Your task to perform on an android device: turn on javascript in the chrome app Image 0: 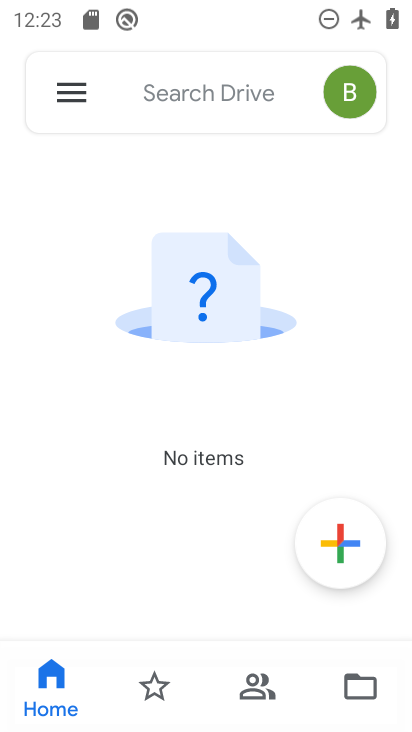
Step 0: press home button
Your task to perform on an android device: turn on javascript in the chrome app Image 1: 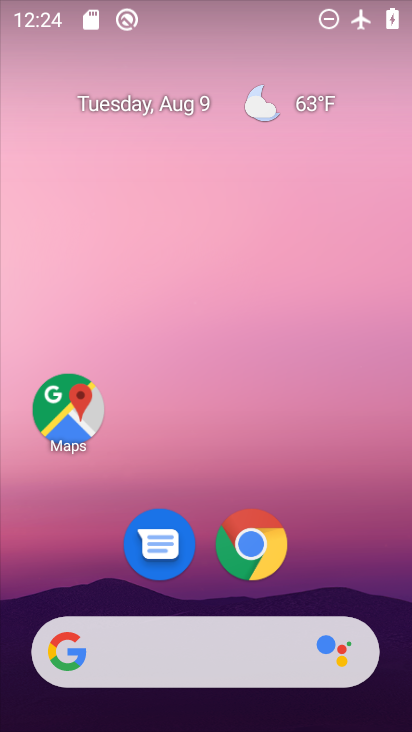
Step 1: click (254, 544)
Your task to perform on an android device: turn on javascript in the chrome app Image 2: 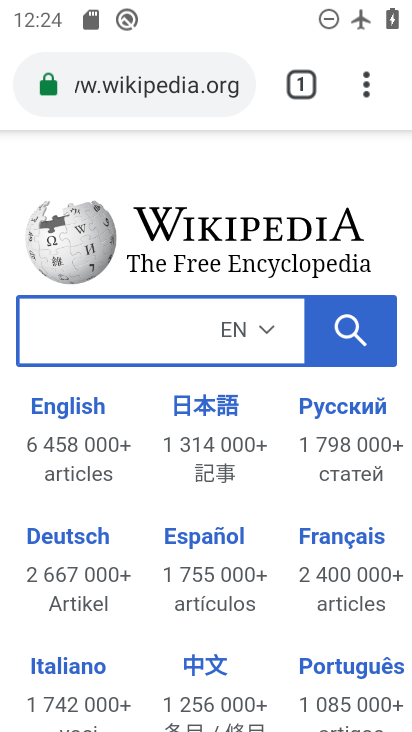
Step 2: click (365, 88)
Your task to perform on an android device: turn on javascript in the chrome app Image 3: 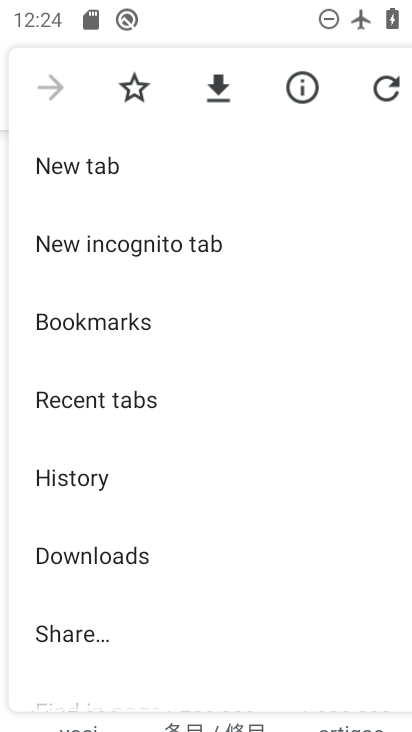
Step 3: drag from (145, 533) to (214, 419)
Your task to perform on an android device: turn on javascript in the chrome app Image 4: 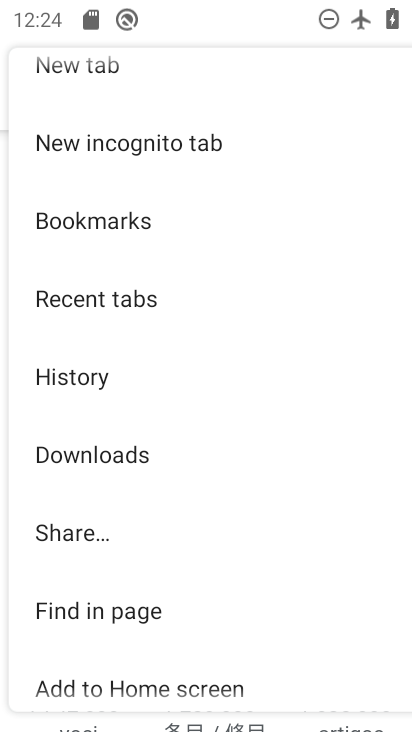
Step 4: drag from (143, 540) to (231, 436)
Your task to perform on an android device: turn on javascript in the chrome app Image 5: 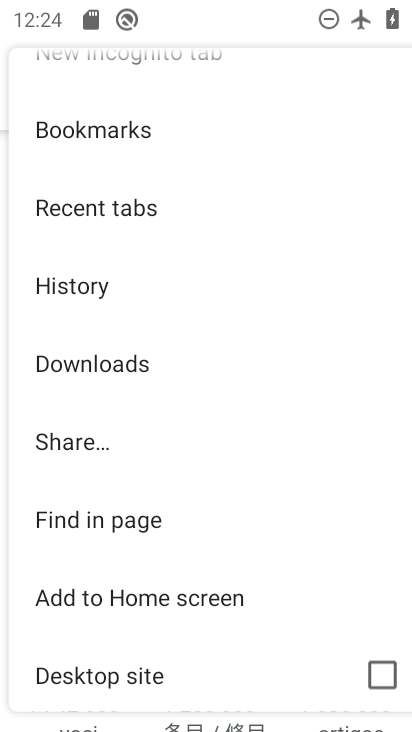
Step 5: drag from (154, 571) to (252, 436)
Your task to perform on an android device: turn on javascript in the chrome app Image 6: 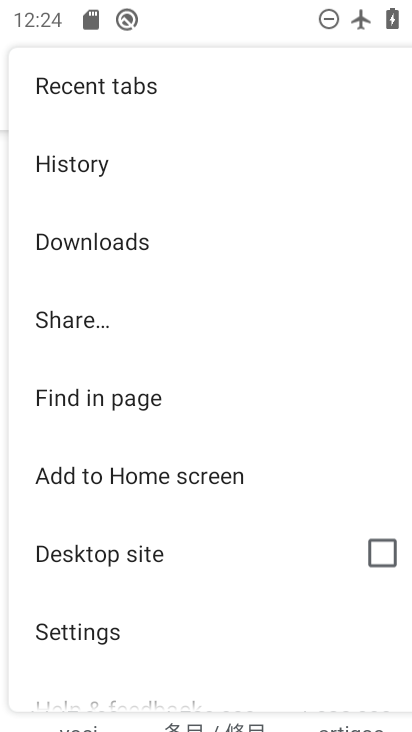
Step 6: click (108, 629)
Your task to perform on an android device: turn on javascript in the chrome app Image 7: 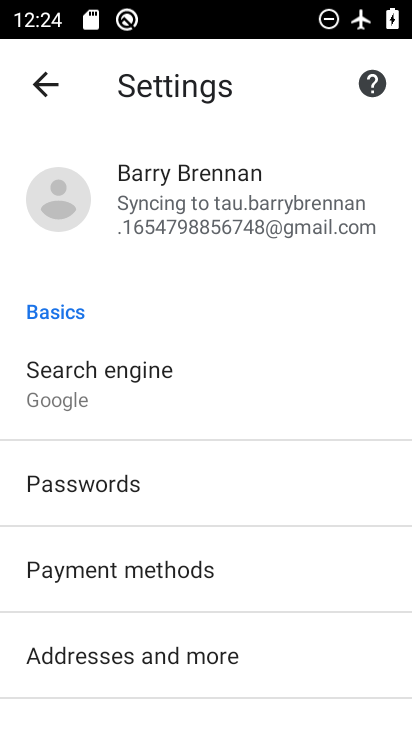
Step 7: drag from (170, 686) to (240, 588)
Your task to perform on an android device: turn on javascript in the chrome app Image 8: 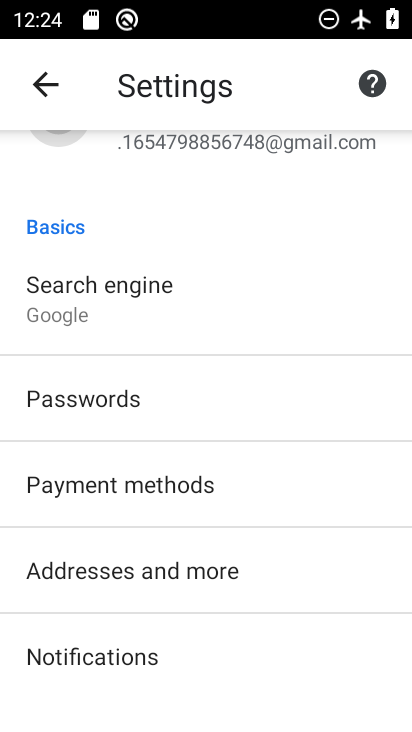
Step 8: drag from (165, 669) to (242, 517)
Your task to perform on an android device: turn on javascript in the chrome app Image 9: 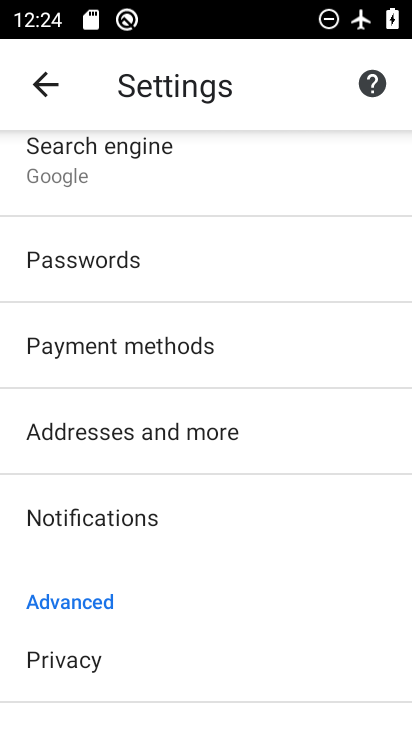
Step 9: drag from (145, 658) to (248, 484)
Your task to perform on an android device: turn on javascript in the chrome app Image 10: 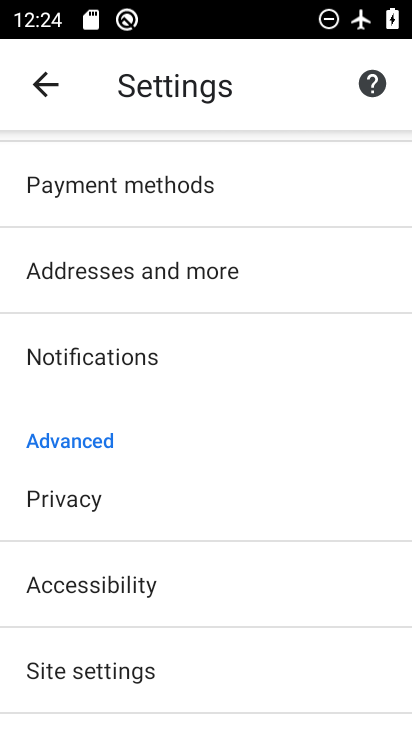
Step 10: click (104, 671)
Your task to perform on an android device: turn on javascript in the chrome app Image 11: 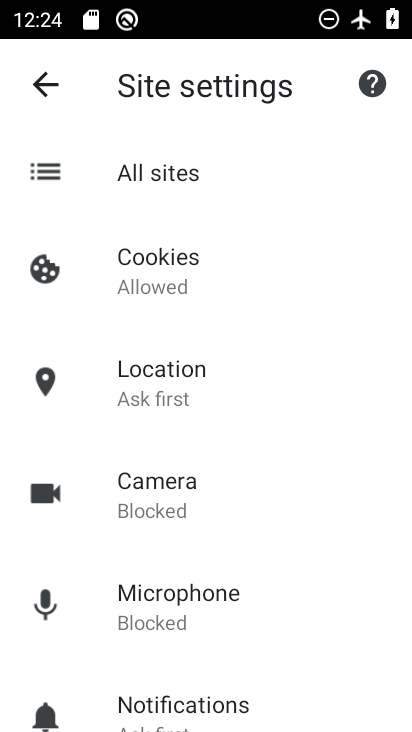
Step 11: drag from (175, 637) to (255, 522)
Your task to perform on an android device: turn on javascript in the chrome app Image 12: 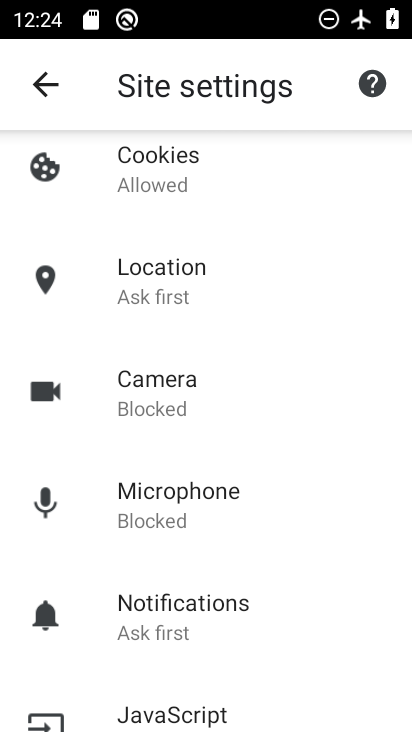
Step 12: drag from (199, 673) to (283, 517)
Your task to perform on an android device: turn on javascript in the chrome app Image 13: 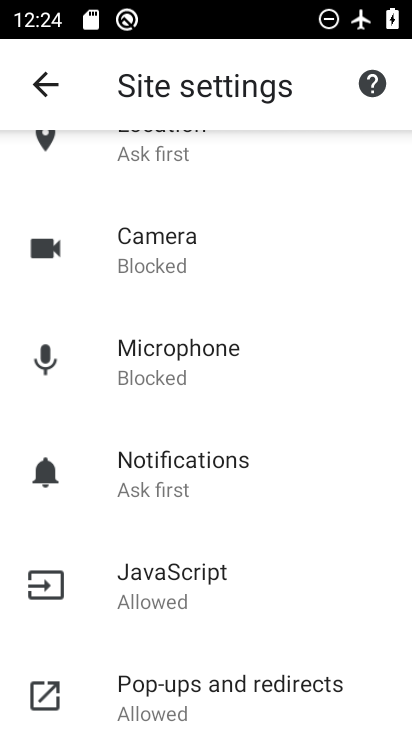
Step 13: click (207, 573)
Your task to perform on an android device: turn on javascript in the chrome app Image 14: 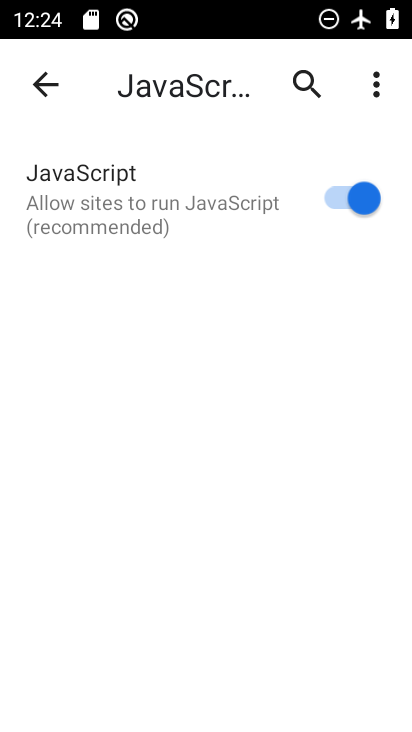
Step 14: task complete